Your task to perform on an android device: find which apps use the phone's location Image 0: 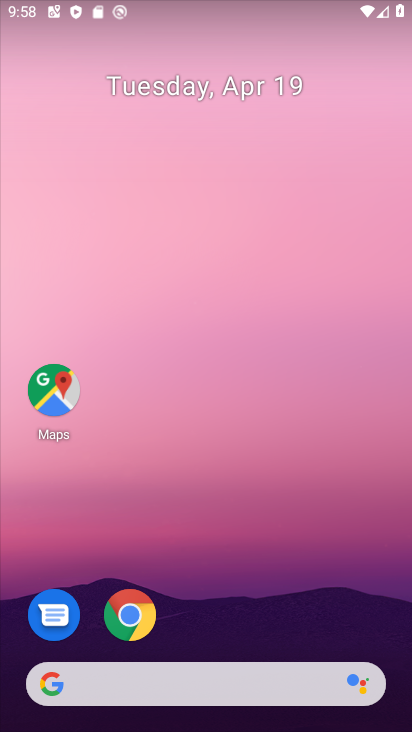
Step 0: click (201, 236)
Your task to perform on an android device: find which apps use the phone's location Image 1: 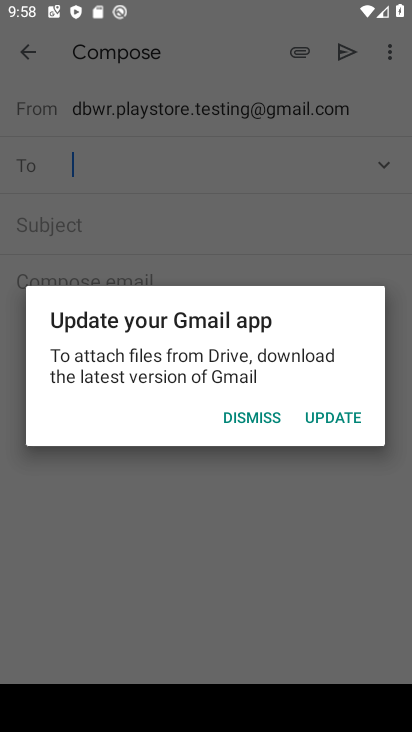
Step 1: press home button
Your task to perform on an android device: find which apps use the phone's location Image 2: 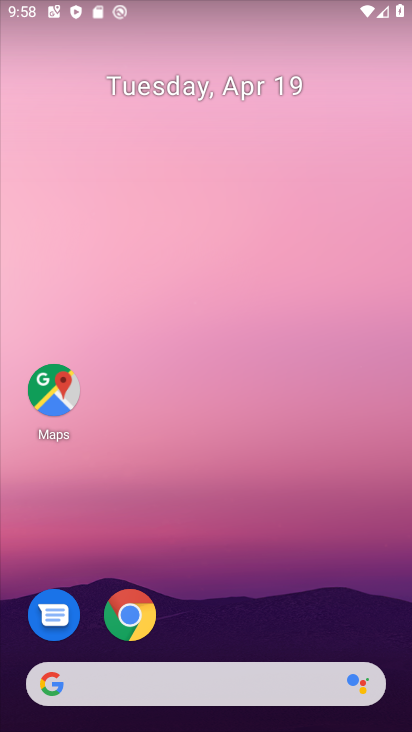
Step 2: drag from (216, 503) to (237, 170)
Your task to perform on an android device: find which apps use the phone's location Image 3: 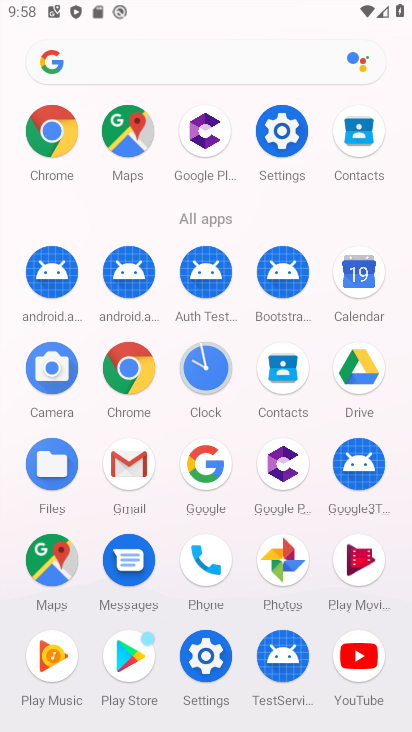
Step 3: drag from (249, 605) to (281, 272)
Your task to perform on an android device: find which apps use the phone's location Image 4: 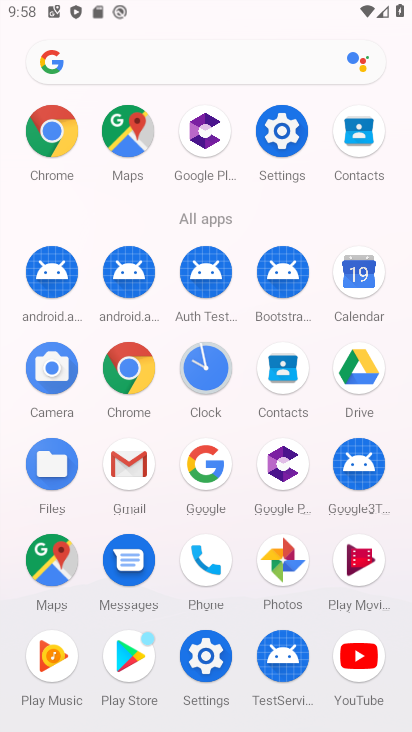
Step 4: click (208, 649)
Your task to perform on an android device: find which apps use the phone's location Image 5: 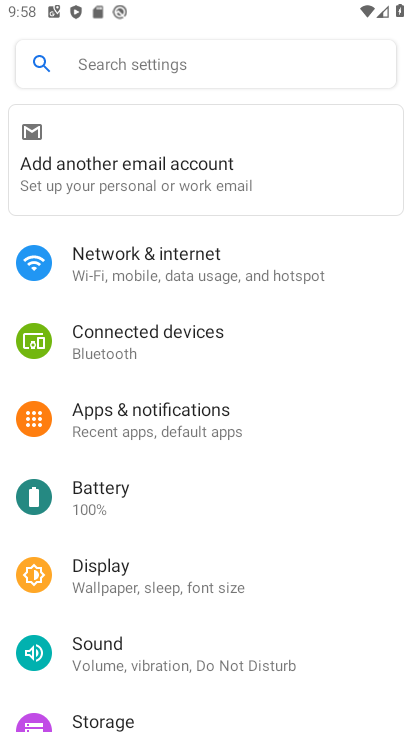
Step 5: drag from (246, 634) to (306, 120)
Your task to perform on an android device: find which apps use the phone's location Image 6: 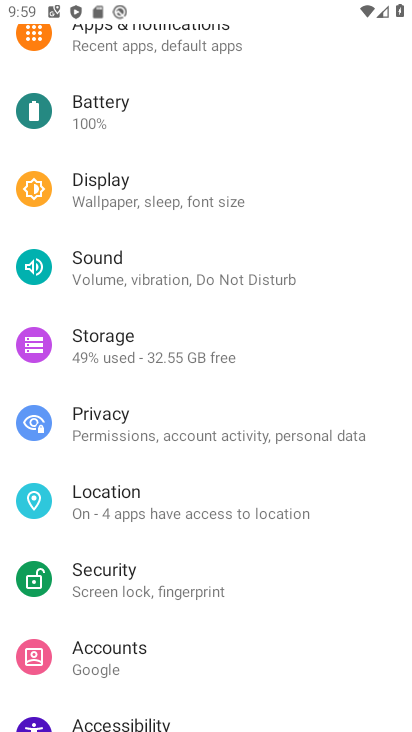
Step 6: drag from (216, 644) to (295, 221)
Your task to perform on an android device: find which apps use the phone's location Image 7: 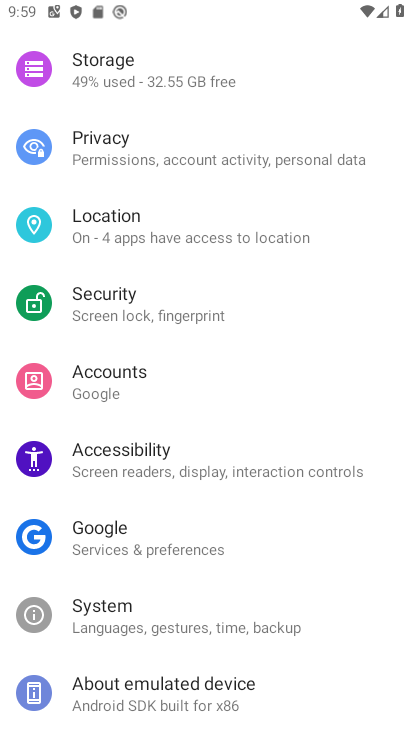
Step 7: click (192, 219)
Your task to perform on an android device: find which apps use the phone's location Image 8: 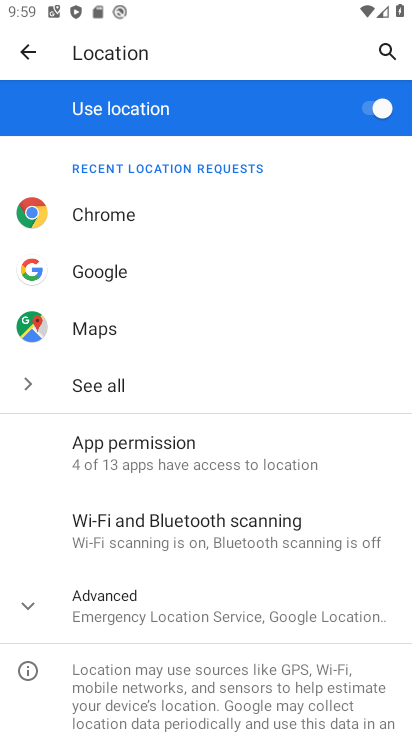
Step 8: drag from (221, 555) to (286, 217)
Your task to perform on an android device: find which apps use the phone's location Image 9: 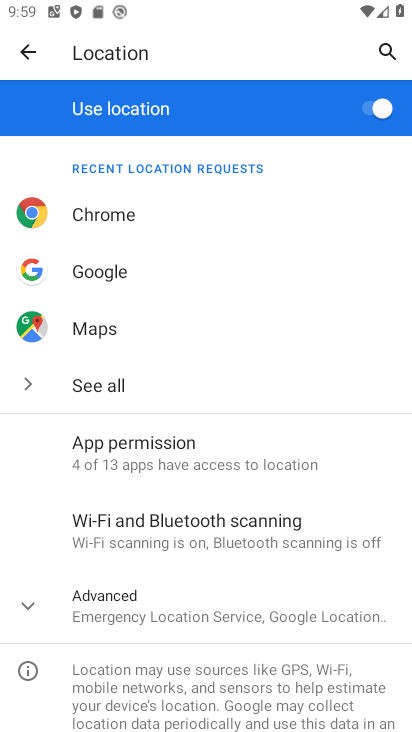
Step 9: click (130, 615)
Your task to perform on an android device: find which apps use the phone's location Image 10: 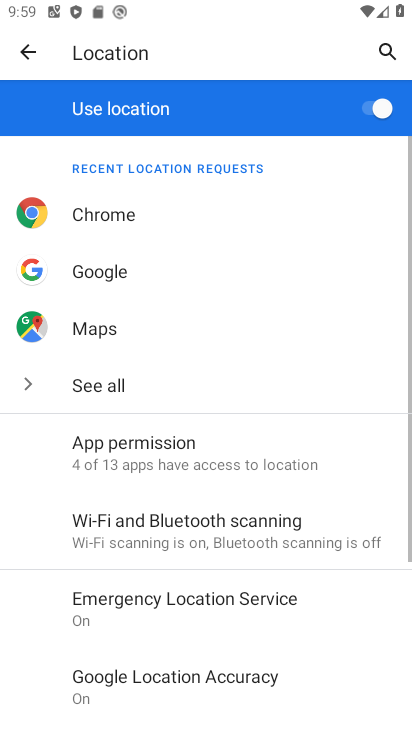
Step 10: drag from (257, 594) to (319, 212)
Your task to perform on an android device: find which apps use the phone's location Image 11: 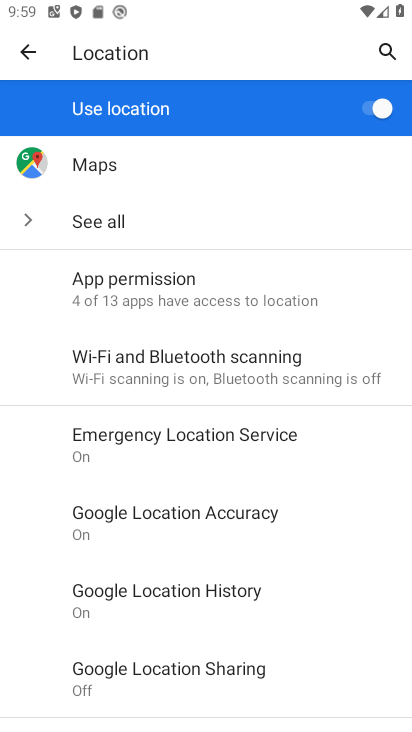
Step 11: drag from (246, 574) to (241, 310)
Your task to perform on an android device: find which apps use the phone's location Image 12: 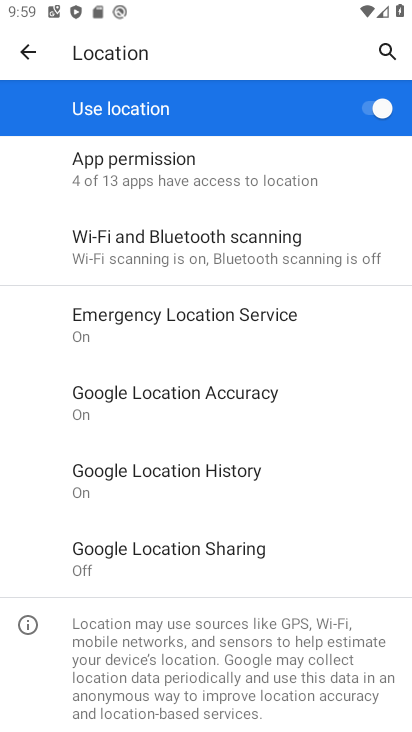
Step 12: drag from (249, 362) to (309, 619)
Your task to perform on an android device: find which apps use the phone's location Image 13: 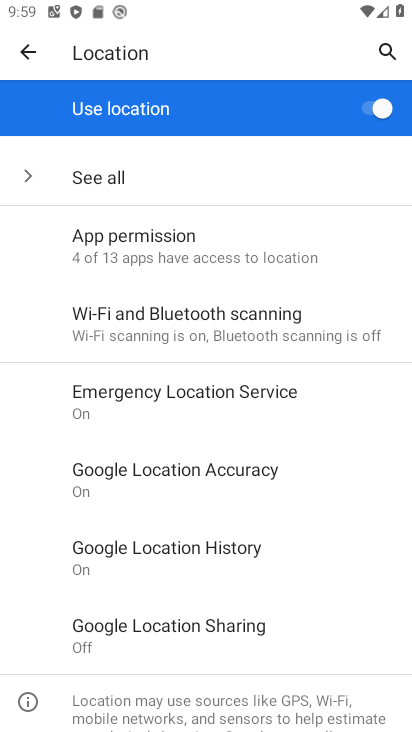
Step 13: drag from (140, 242) to (243, 603)
Your task to perform on an android device: find which apps use the phone's location Image 14: 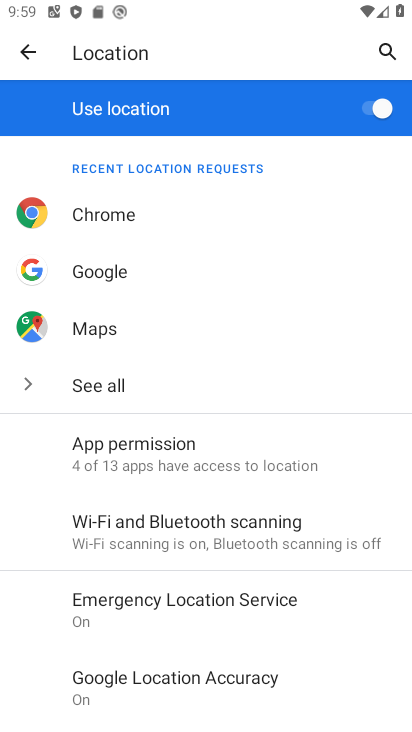
Step 14: click (163, 460)
Your task to perform on an android device: find which apps use the phone's location Image 15: 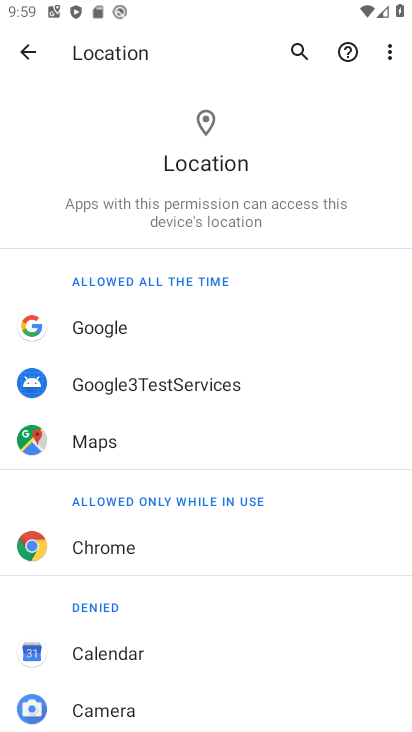
Step 15: task complete